Your task to perform on an android device: change timer sound Image 0: 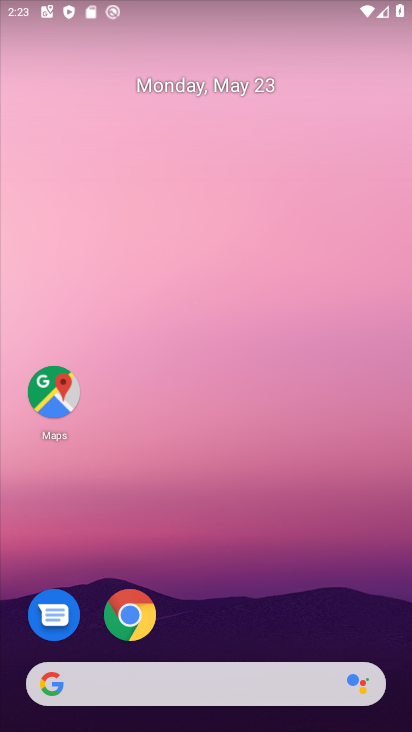
Step 0: drag from (285, 590) to (252, 0)
Your task to perform on an android device: change timer sound Image 1: 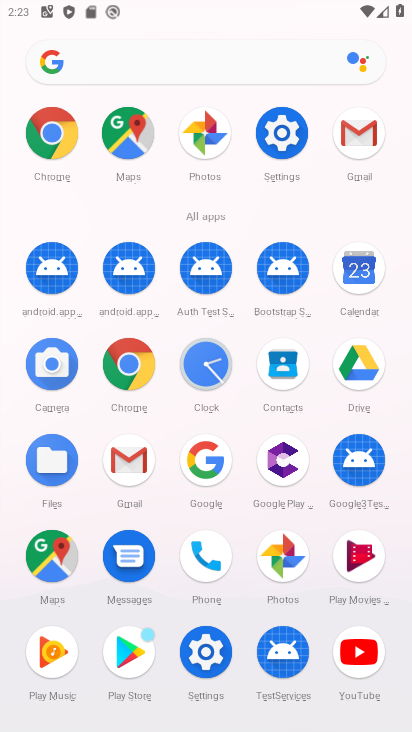
Step 1: click (207, 367)
Your task to perform on an android device: change timer sound Image 2: 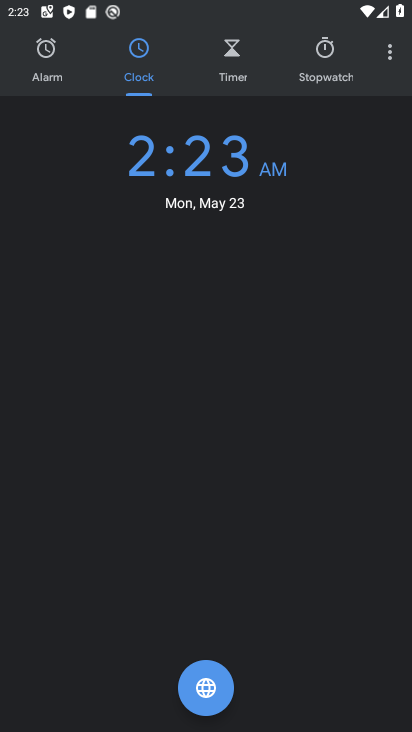
Step 2: click (395, 54)
Your task to perform on an android device: change timer sound Image 3: 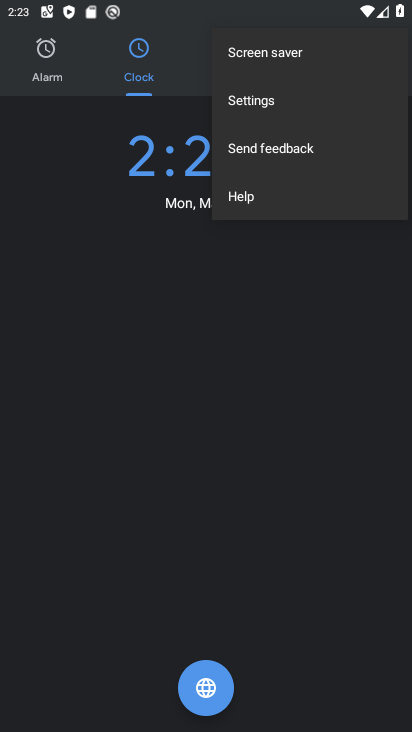
Step 3: click (252, 103)
Your task to perform on an android device: change timer sound Image 4: 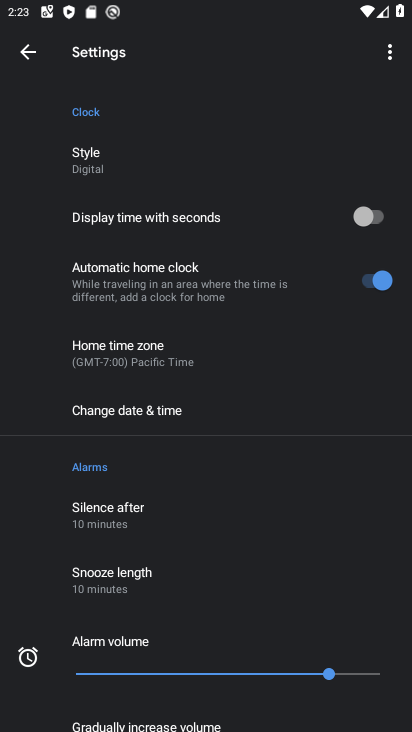
Step 4: drag from (182, 480) to (192, 187)
Your task to perform on an android device: change timer sound Image 5: 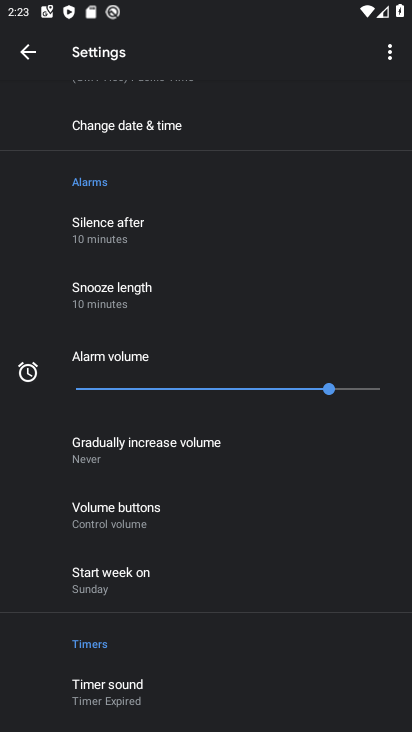
Step 5: drag from (221, 612) to (244, 407)
Your task to perform on an android device: change timer sound Image 6: 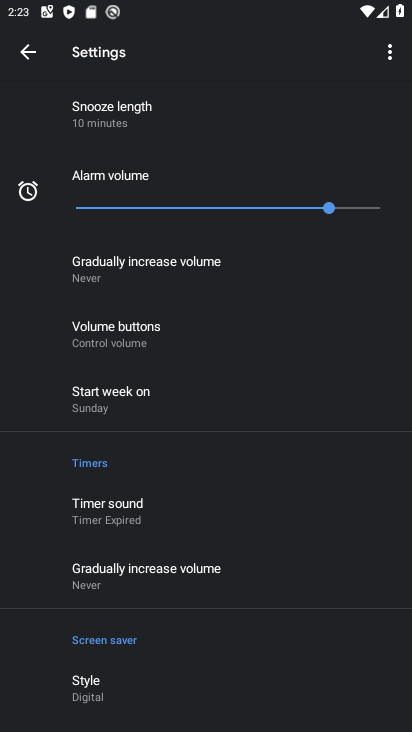
Step 6: click (92, 514)
Your task to perform on an android device: change timer sound Image 7: 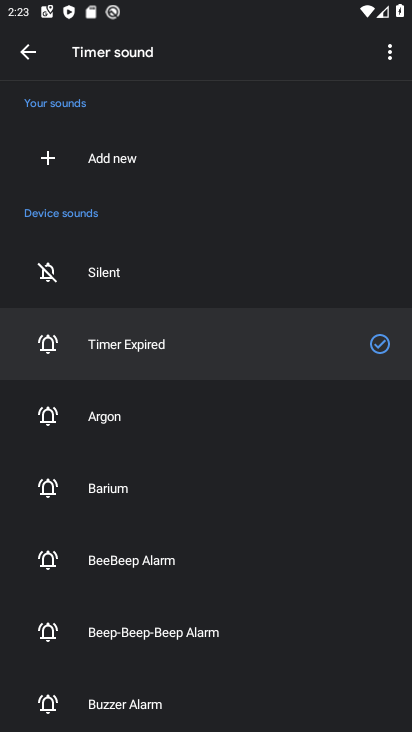
Step 7: click (92, 486)
Your task to perform on an android device: change timer sound Image 8: 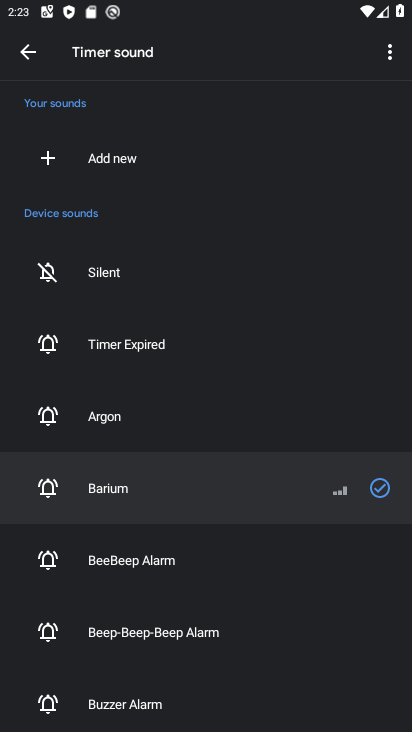
Step 8: task complete